Your task to perform on an android device: open a bookmark in the chrome app Image 0: 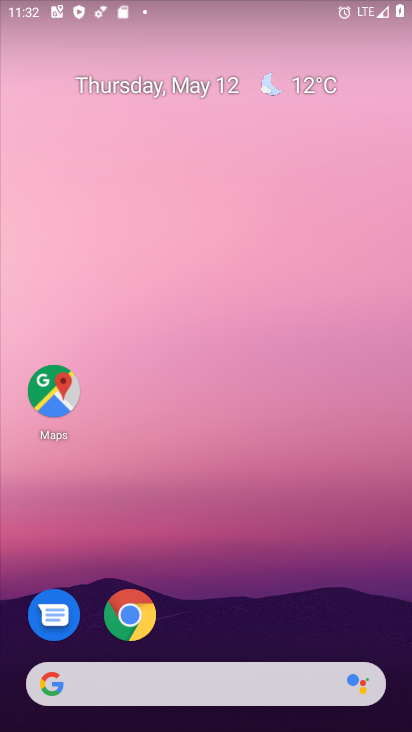
Step 0: click (142, 610)
Your task to perform on an android device: open a bookmark in the chrome app Image 1: 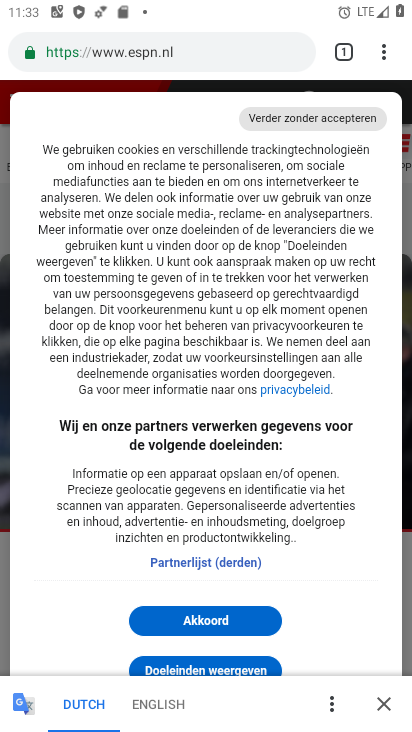
Step 1: click (383, 54)
Your task to perform on an android device: open a bookmark in the chrome app Image 2: 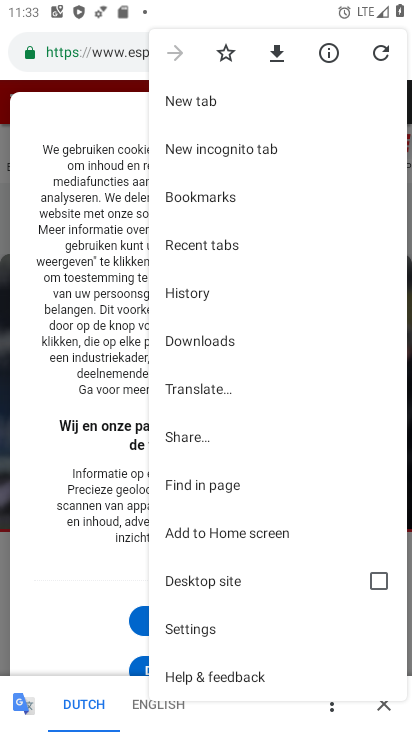
Step 2: click (254, 193)
Your task to perform on an android device: open a bookmark in the chrome app Image 3: 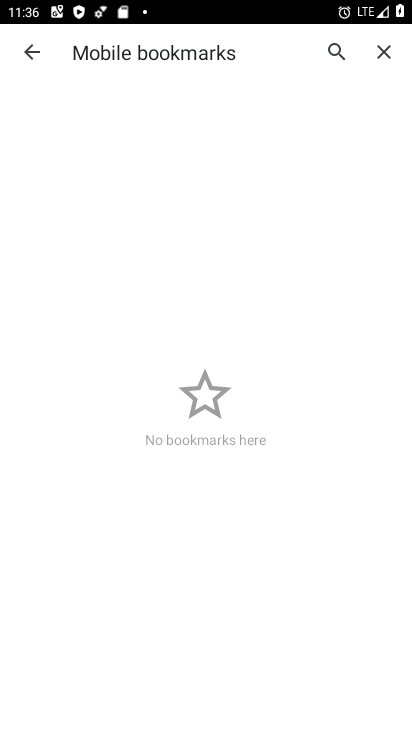
Step 3: task complete